Your task to perform on an android device: Open battery settings Image 0: 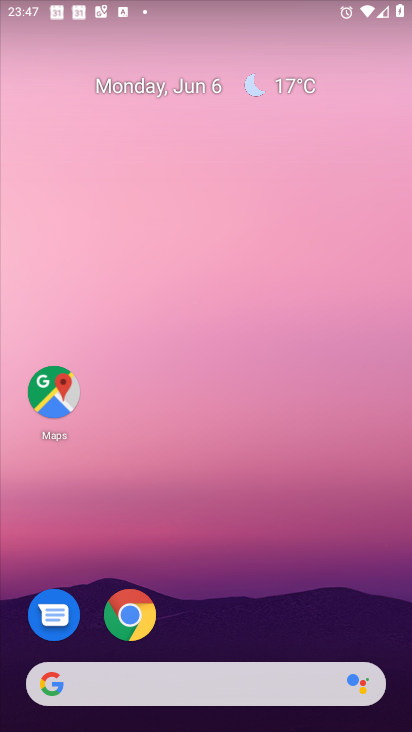
Step 0: drag from (390, 718) to (343, 171)
Your task to perform on an android device: Open battery settings Image 1: 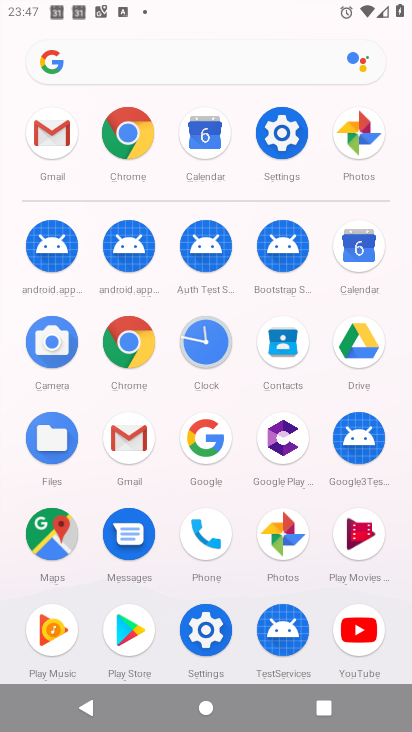
Step 1: click (282, 136)
Your task to perform on an android device: Open battery settings Image 2: 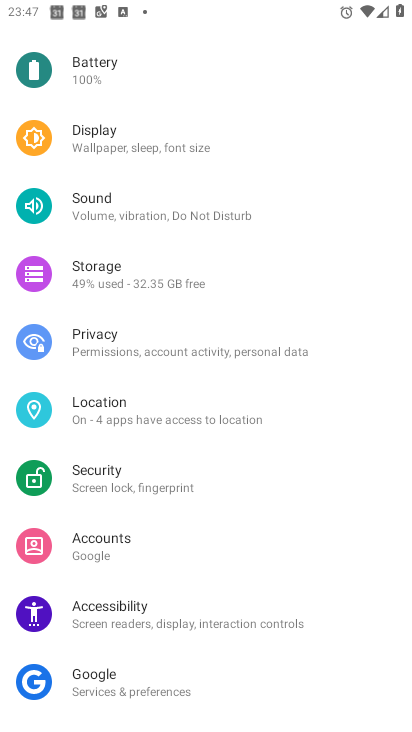
Step 2: click (92, 57)
Your task to perform on an android device: Open battery settings Image 3: 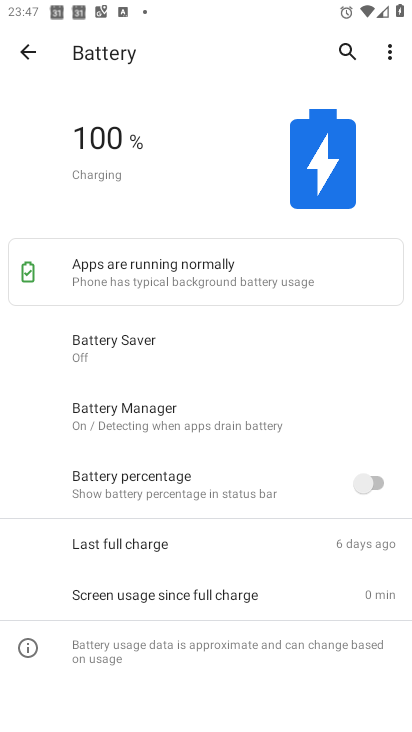
Step 3: task complete